Your task to perform on an android device: turn off improve location accuracy Image 0: 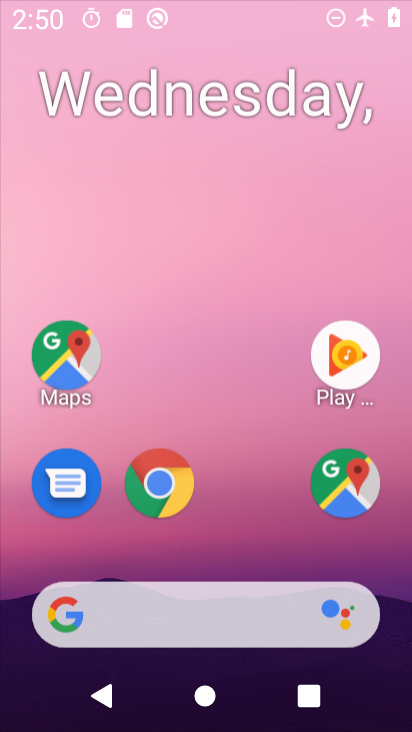
Step 0: press home button
Your task to perform on an android device: turn off improve location accuracy Image 1: 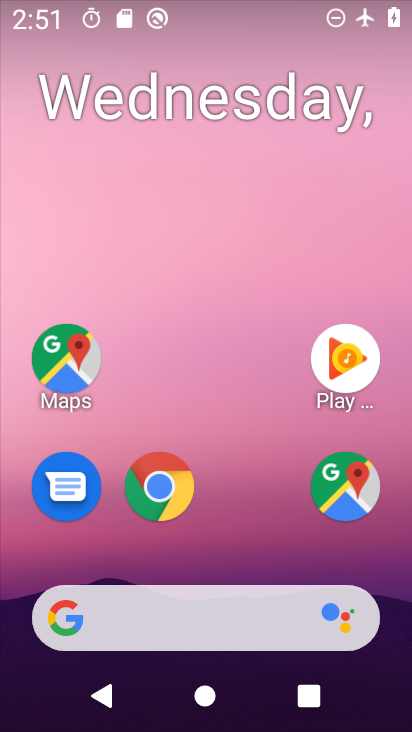
Step 1: drag from (252, 527) to (221, 113)
Your task to perform on an android device: turn off improve location accuracy Image 2: 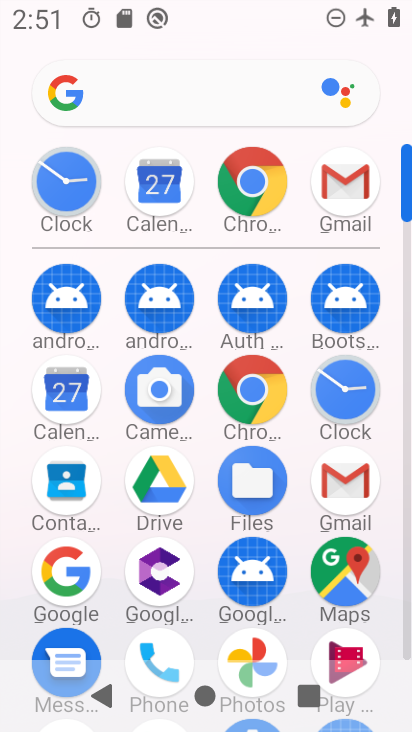
Step 2: drag from (399, 456) to (386, 249)
Your task to perform on an android device: turn off improve location accuracy Image 3: 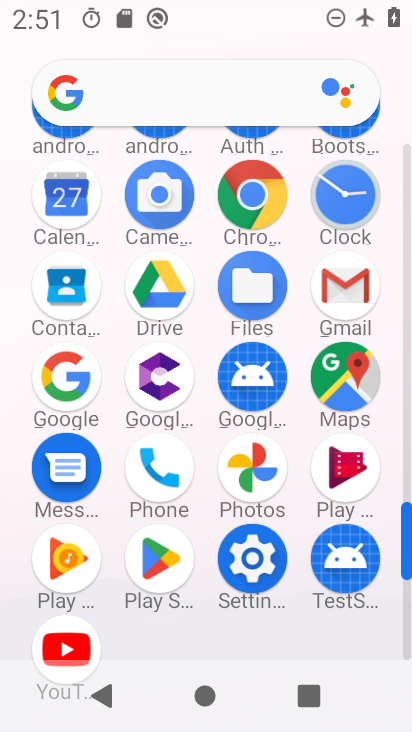
Step 3: click (253, 562)
Your task to perform on an android device: turn off improve location accuracy Image 4: 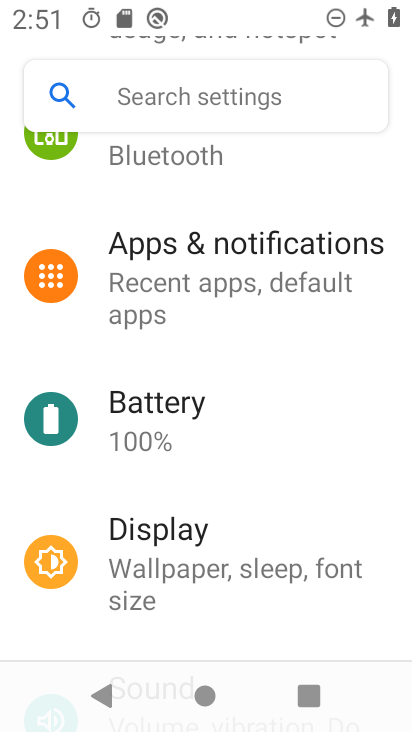
Step 4: drag from (291, 601) to (292, 453)
Your task to perform on an android device: turn off improve location accuracy Image 5: 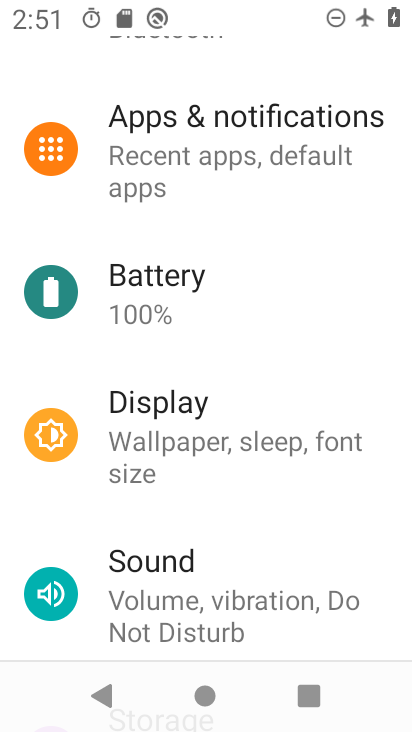
Step 5: drag from (312, 552) to (304, 325)
Your task to perform on an android device: turn off improve location accuracy Image 6: 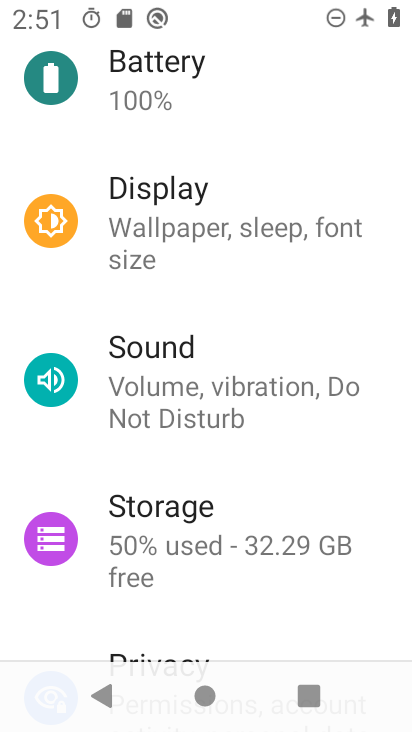
Step 6: drag from (328, 463) to (335, 167)
Your task to perform on an android device: turn off improve location accuracy Image 7: 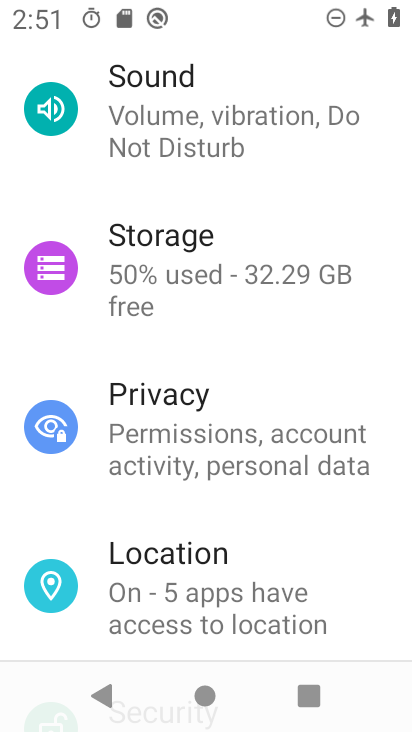
Step 7: drag from (300, 515) to (296, 394)
Your task to perform on an android device: turn off improve location accuracy Image 8: 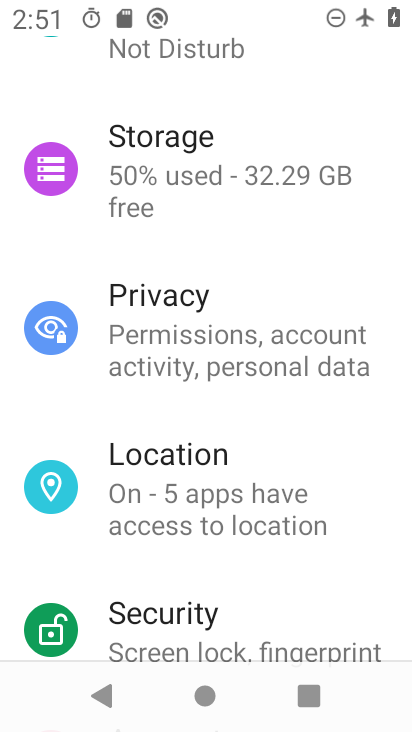
Step 8: drag from (297, 501) to (311, 317)
Your task to perform on an android device: turn off improve location accuracy Image 9: 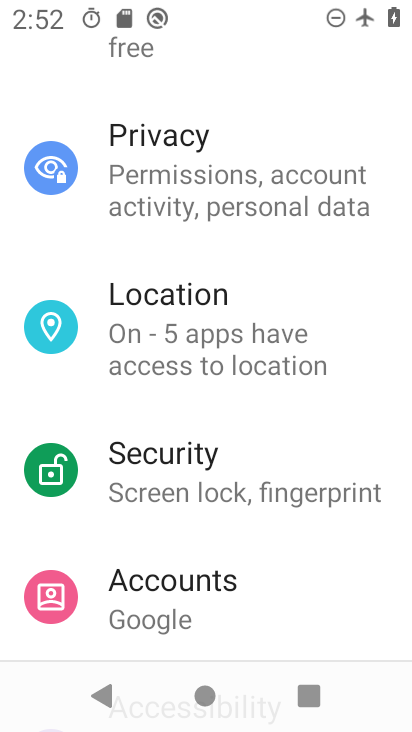
Step 9: drag from (308, 543) to (312, 401)
Your task to perform on an android device: turn off improve location accuracy Image 10: 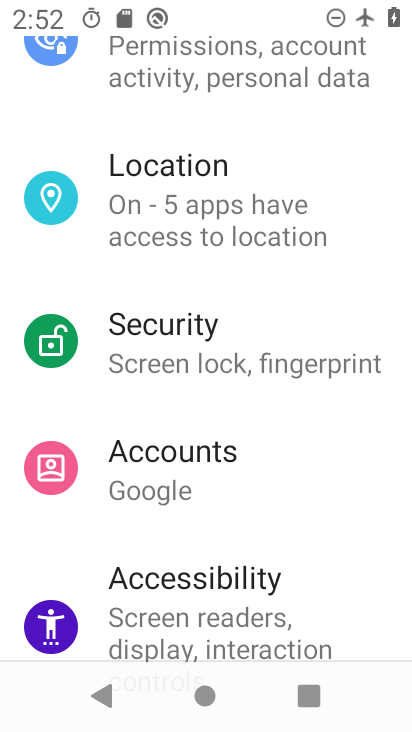
Step 10: drag from (310, 505) to (309, 396)
Your task to perform on an android device: turn off improve location accuracy Image 11: 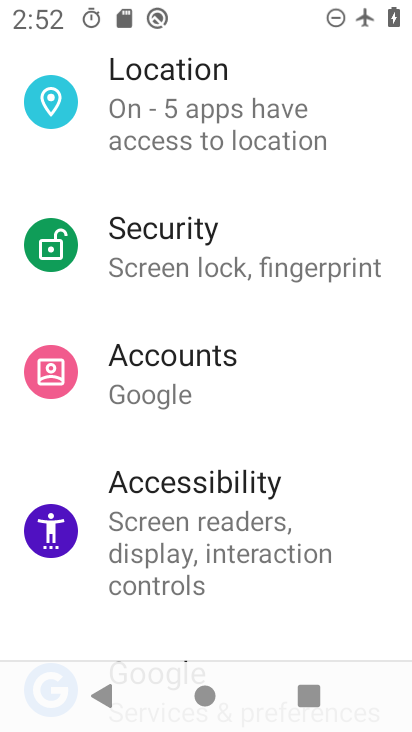
Step 11: drag from (305, 515) to (328, 371)
Your task to perform on an android device: turn off improve location accuracy Image 12: 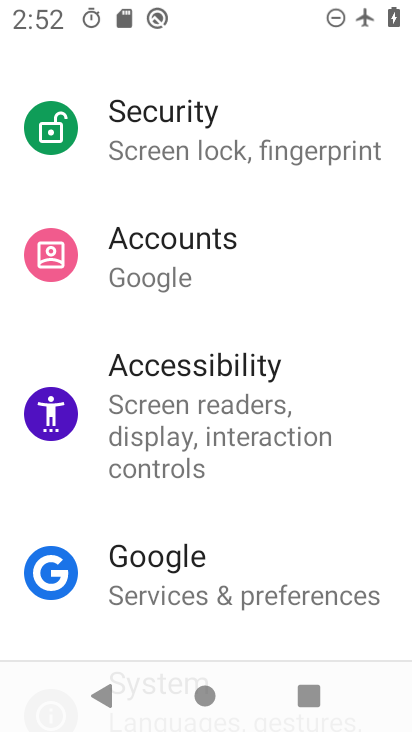
Step 12: drag from (330, 500) to (331, 409)
Your task to perform on an android device: turn off improve location accuracy Image 13: 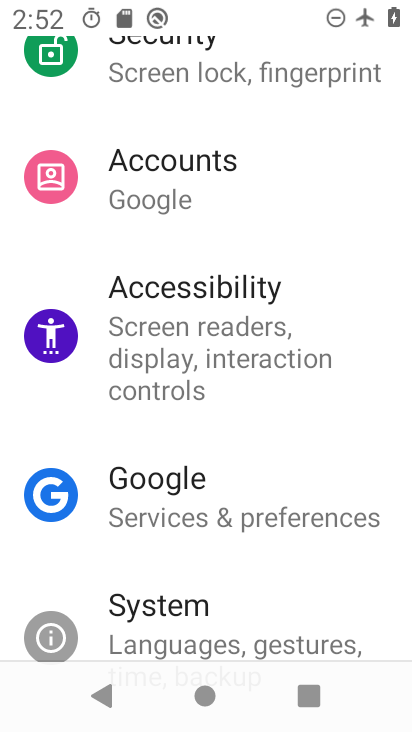
Step 13: drag from (327, 497) to (325, 340)
Your task to perform on an android device: turn off improve location accuracy Image 14: 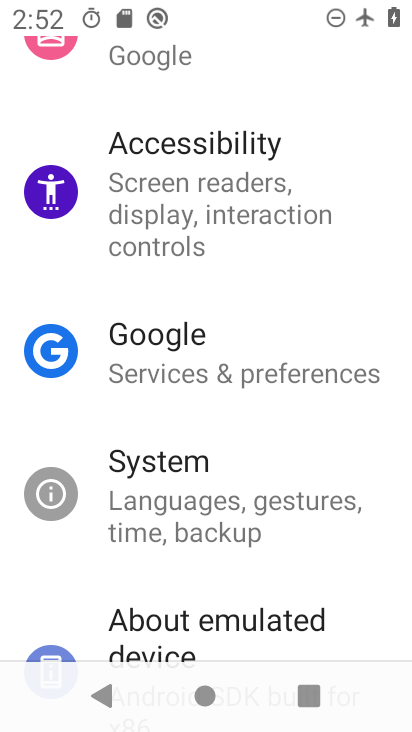
Step 14: drag from (341, 507) to (339, 394)
Your task to perform on an android device: turn off improve location accuracy Image 15: 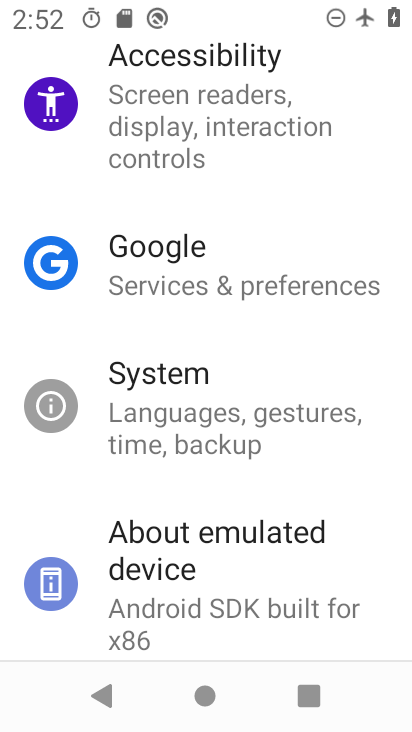
Step 15: drag from (341, 220) to (327, 318)
Your task to perform on an android device: turn off improve location accuracy Image 16: 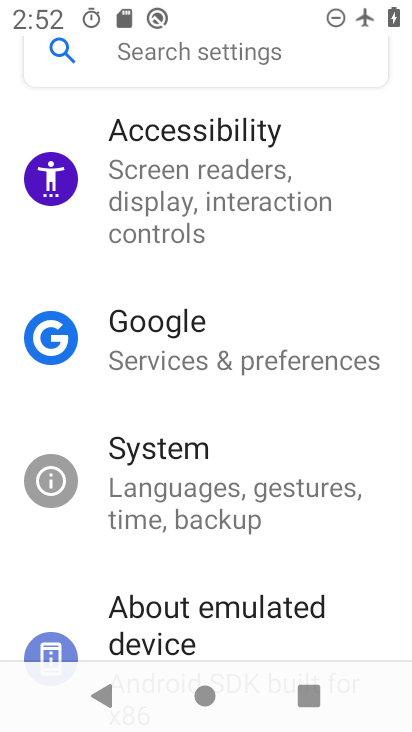
Step 16: drag from (345, 246) to (336, 389)
Your task to perform on an android device: turn off improve location accuracy Image 17: 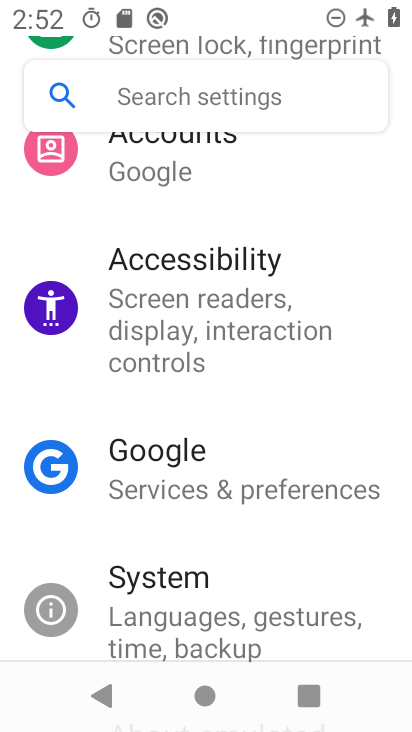
Step 17: drag from (350, 287) to (357, 402)
Your task to perform on an android device: turn off improve location accuracy Image 18: 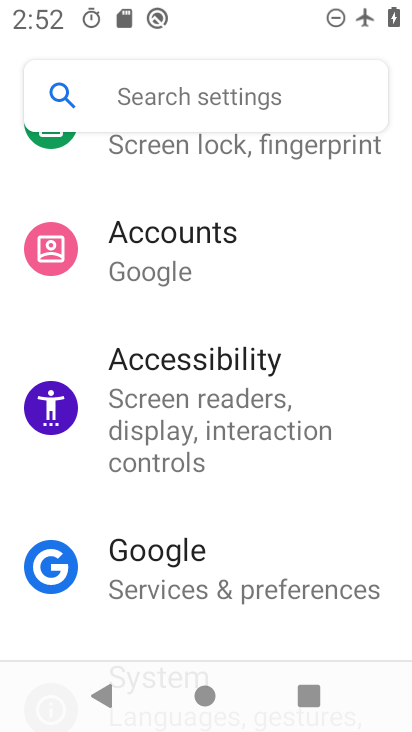
Step 18: drag from (358, 274) to (370, 380)
Your task to perform on an android device: turn off improve location accuracy Image 19: 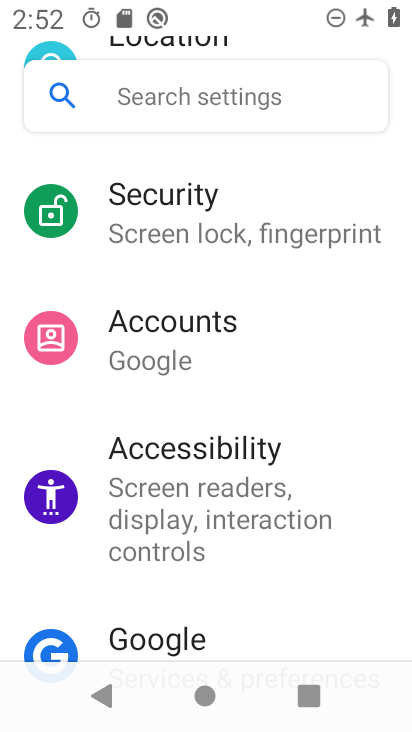
Step 19: drag from (362, 279) to (373, 484)
Your task to perform on an android device: turn off improve location accuracy Image 20: 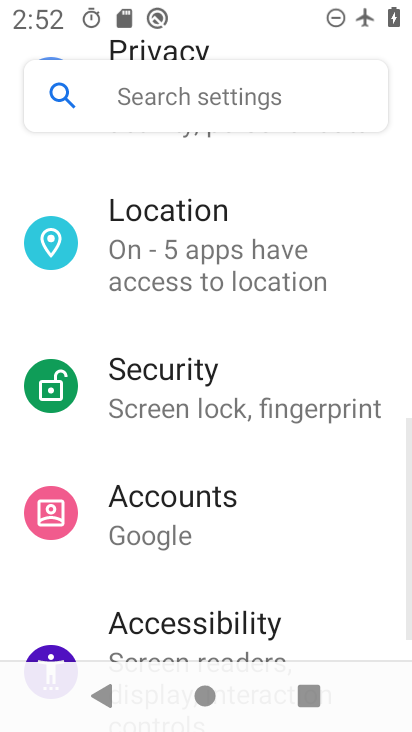
Step 20: click (316, 276)
Your task to perform on an android device: turn off improve location accuracy Image 21: 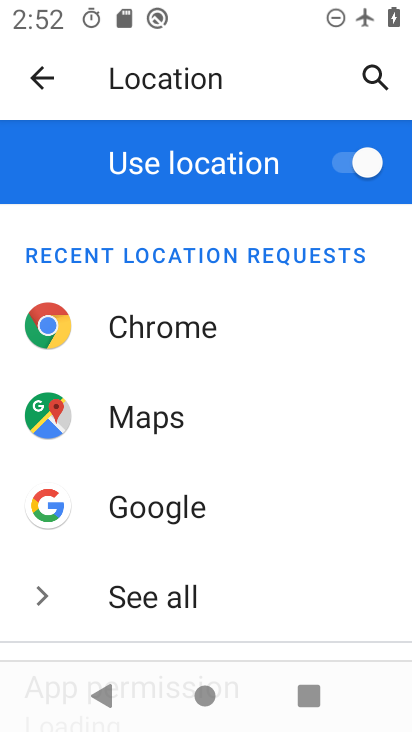
Step 21: drag from (287, 507) to (292, 364)
Your task to perform on an android device: turn off improve location accuracy Image 22: 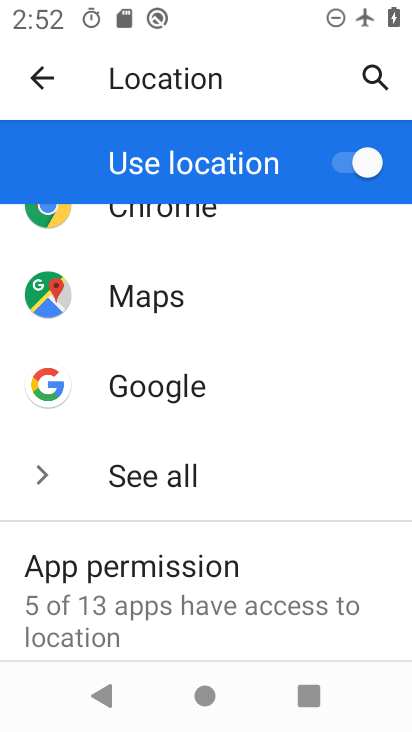
Step 22: drag from (310, 560) to (294, 373)
Your task to perform on an android device: turn off improve location accuracy Image 23: 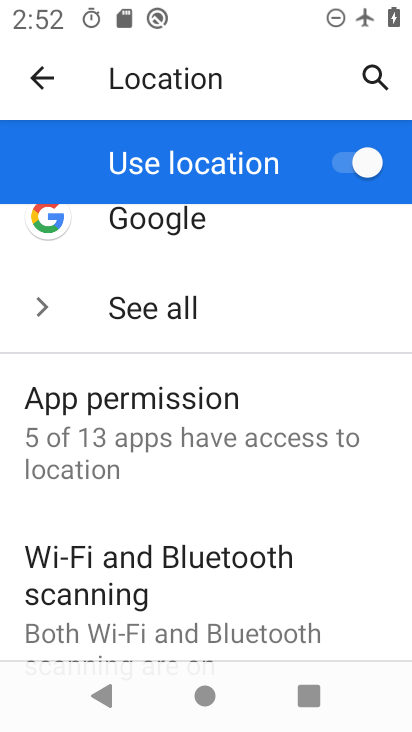
Step 23: drag from (310, 548) to (303, 350)
Your task to perform on an android device: turn off improve location accuracy Image 24: 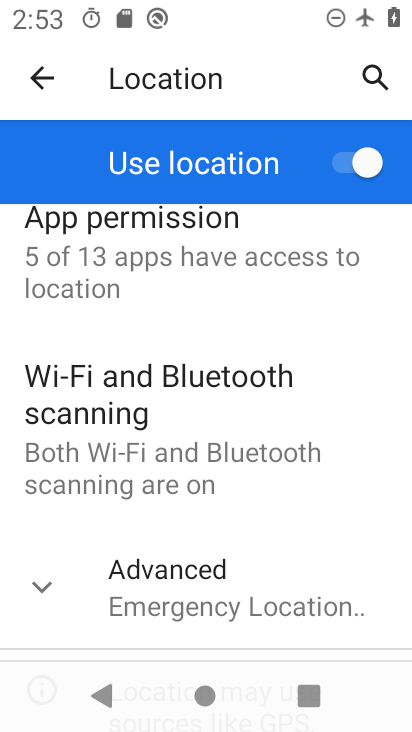
Step 24: click (295, 560)
Your task to perform on an android device: turn off improve location accuracy Image 25: 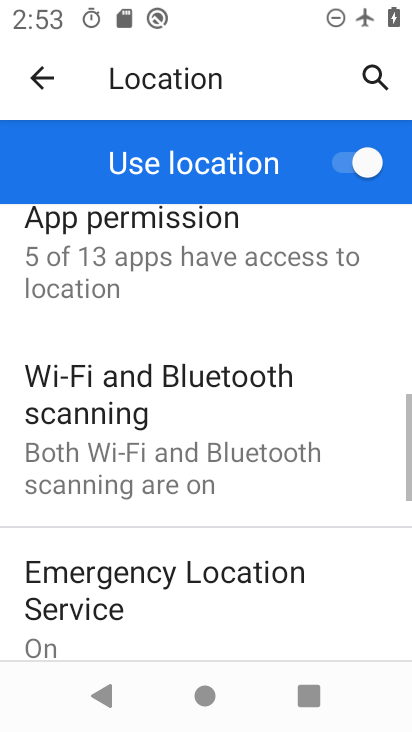
Step 25: drag from (283, 592) to (273, 457)
Your task to perform on an android device: turn off improve location accuracy Image 26: 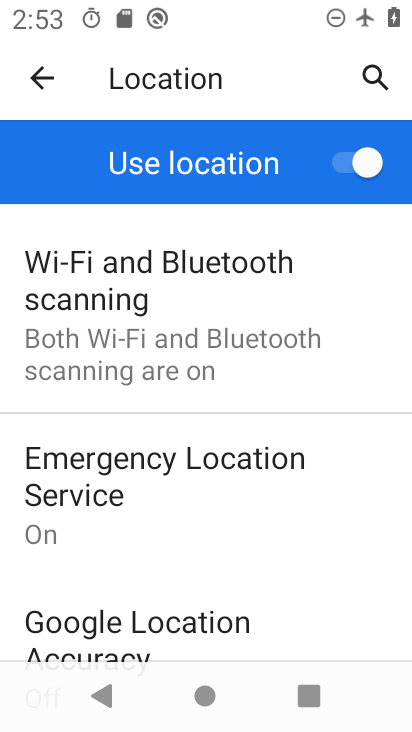
Step 26: drag from (285, 571) to (276, 422)
Your task to perform on an android device: turn off improve location accuracy Image 27: 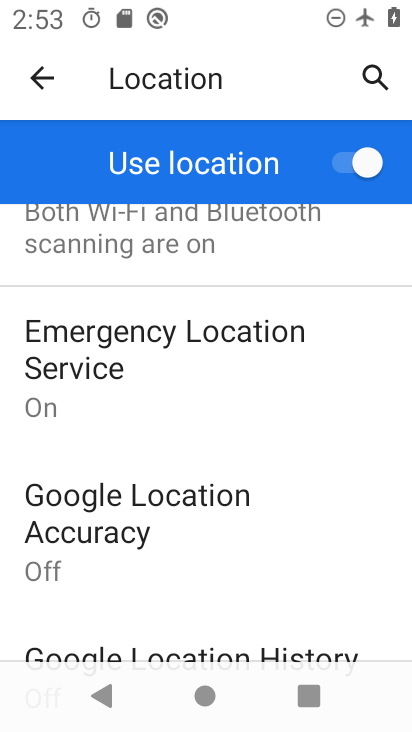
Step 27: click (276, 517)
Your task to perform on an android device: turn off improve location accuracy Image 28: 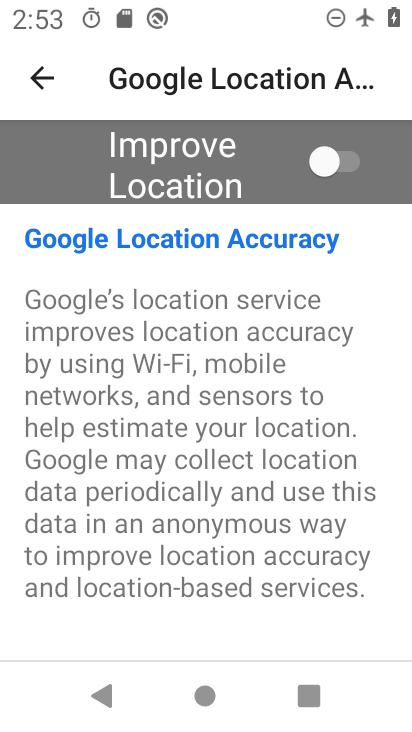
Step 28: task complete